Your task to perform on an android device: What's on my calendar today? Image 0: 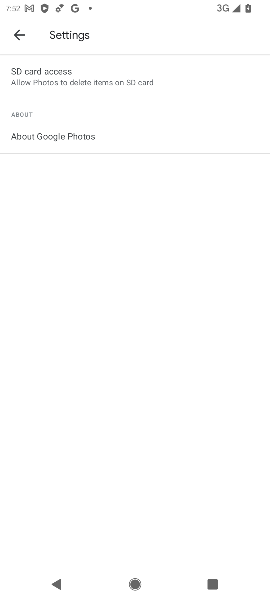
Step 0: press home button
Your task to perform on an android device: What's on my calendar today? Image 1: 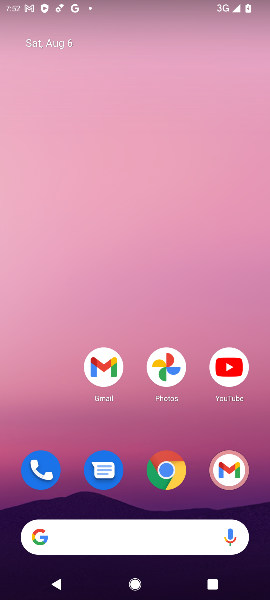
Step 1: drag from (139, 497) to (125, 195)
Your task to perform on an android device: What's on my calendar today? Image 2: 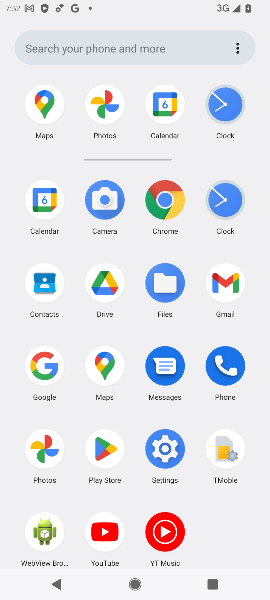
Step 2: click (51, 201)
Your task to perform on an android device: What's on my calendar today? Image 3: 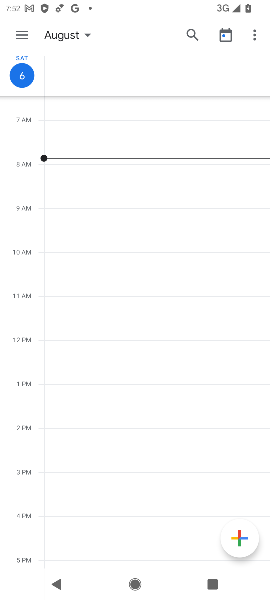
Step 3: click (23, 34)
Your task to perform on an android device: What's on my calendar today? Image 4: 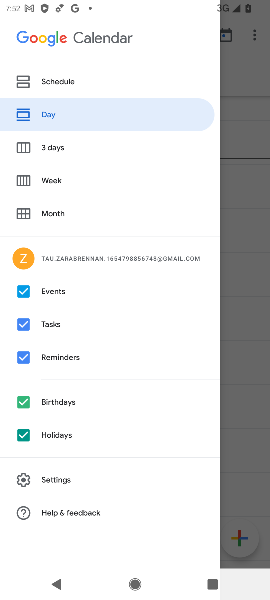
Step 4: click (42, 87)
Your task to perform on an android device: What's on my calendar today? Image 5: 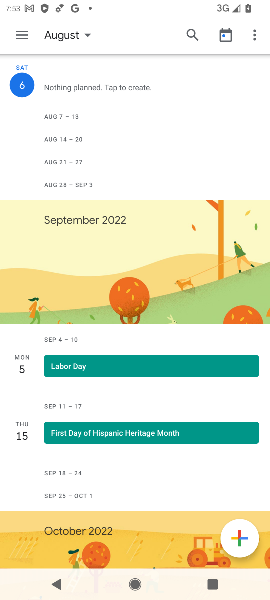
Step 5: task complete